Your task to perform on an android device: toggle pop-ups in chrome Image 0: 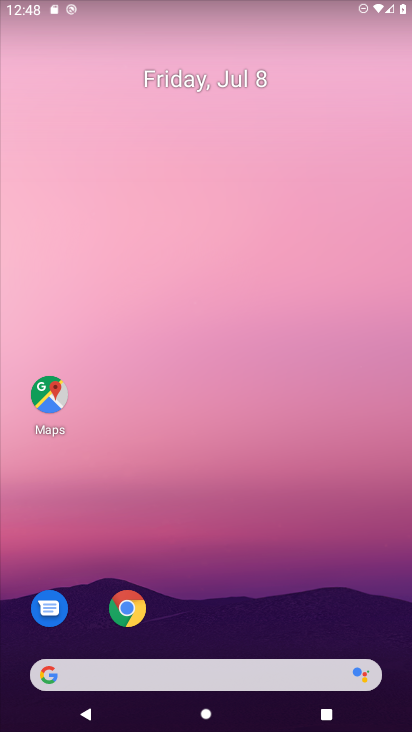
Step 0: click (139, 603)
Your task to perform on an android device: toggle pop-ups in chrome Image 1: 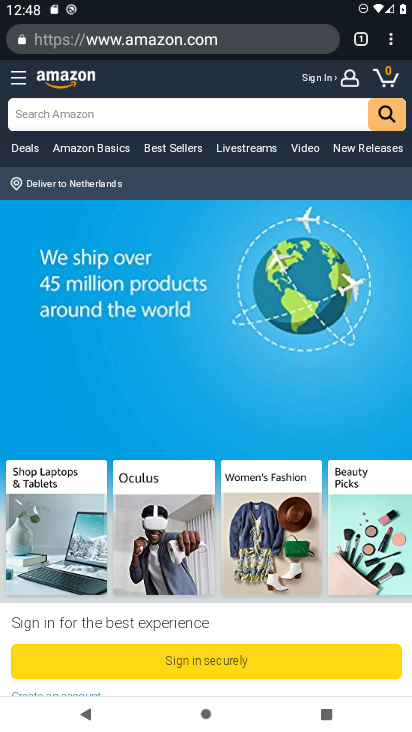
Step 1: click (395, 42)
Your task to perform on an android device: toggle pop-ups in chrome Image 2: 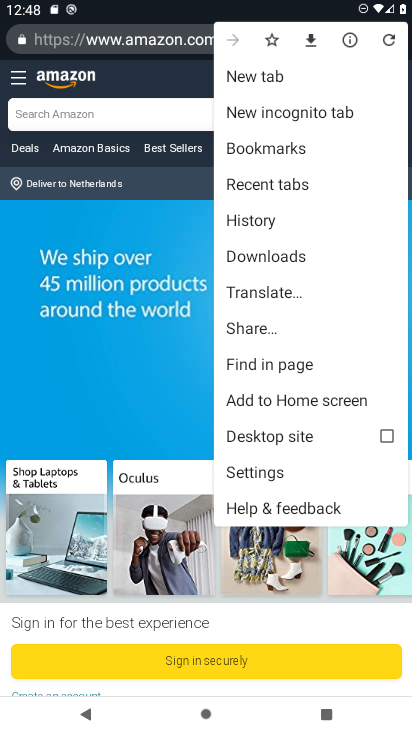
Step 2: click (284, 485)
Your task to perform on an android device: toggle pop-ups in chrome Image 3: 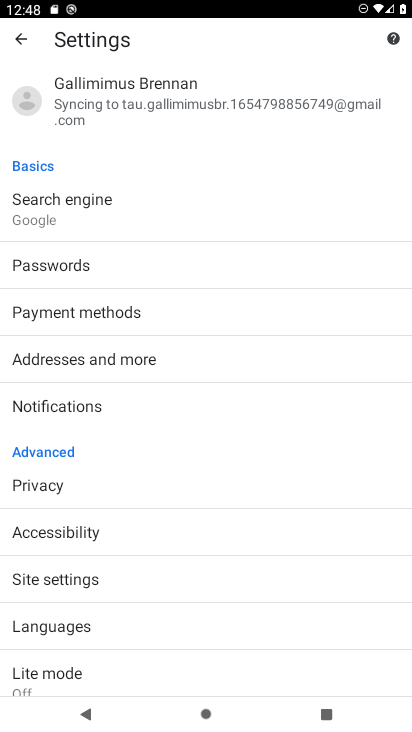
Step 3: click (94, 576)
Your task to perform on an android device: toggle pop-ups in chrome Image 4: 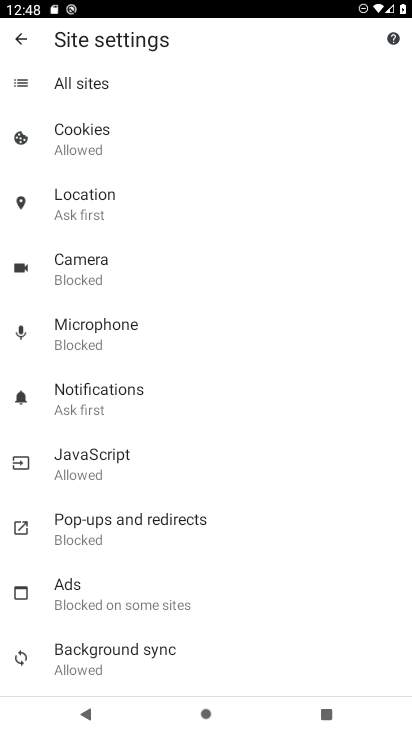
Step 4: click (125, 522)
Your task to perform on an android device: toggle pop-ups in chrome Image 5: 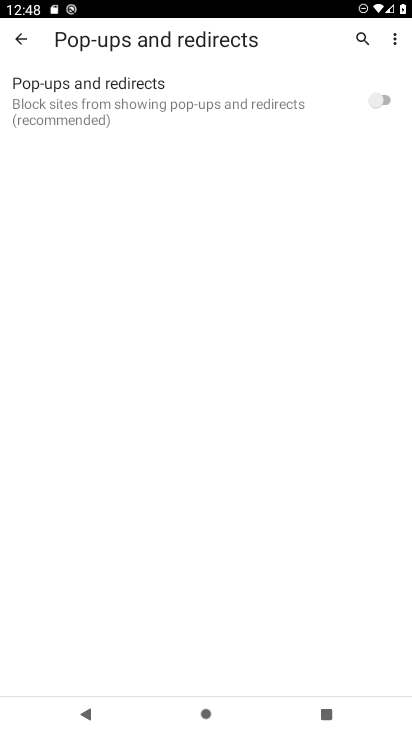
Step 5: click (386, 95)
Your task to perform on an android device: toggle pop-ups in chrome Image 6: 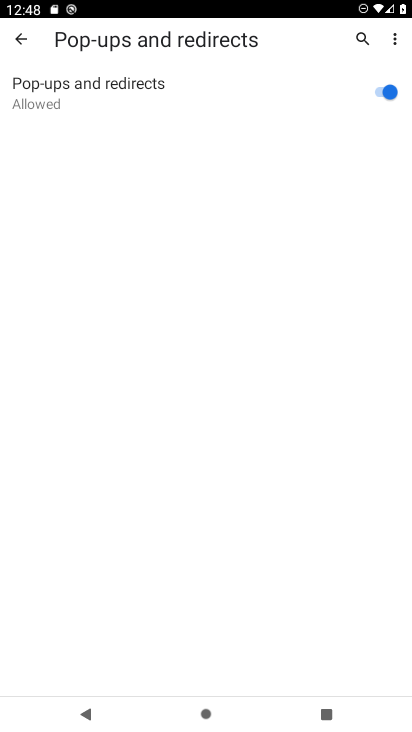
Step 6: task complete